Your task to perform on an android device: Check the news Image 0: 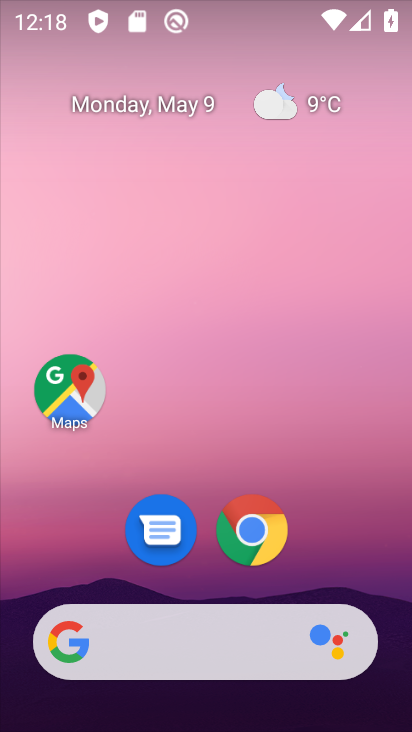
Step 0: click (304, 319)
Your task to perform on an android device: Check the news Image 1: 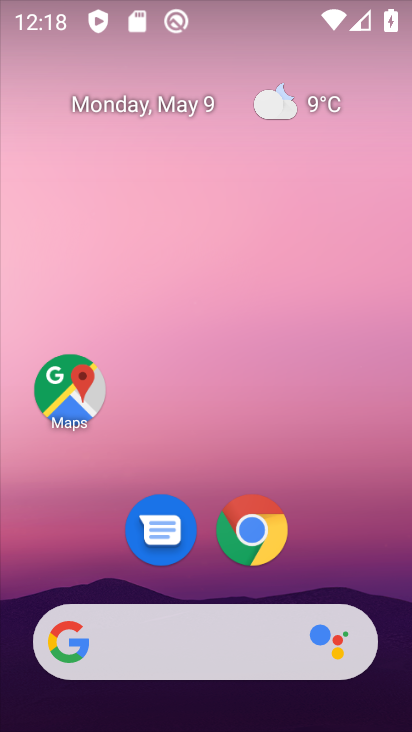
Step 1: click (259, 529)
Your task to perform on an android device: Check the news Image 2: 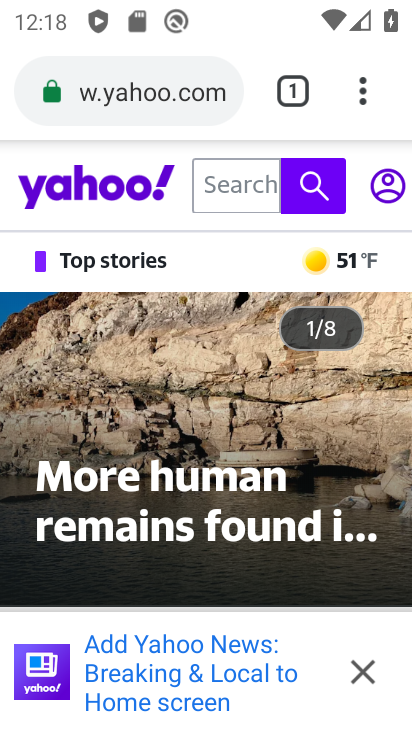
Step 2: click (340, 87)
Your task to perform on an android device: Check the news Image 3: 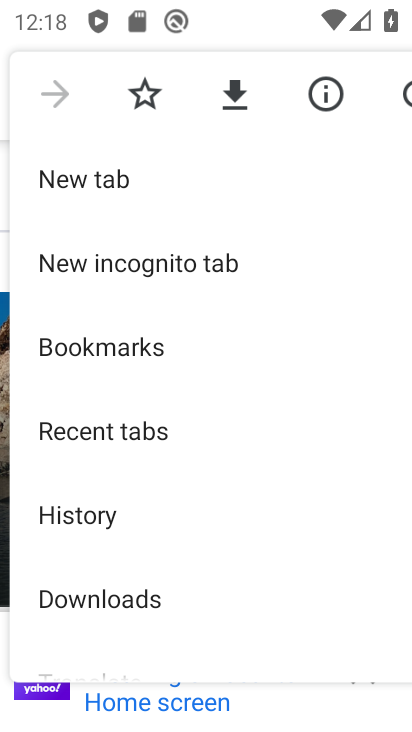
Step 3: click (119, 180)
Your task to perform on an android device: Check the news Image 4: 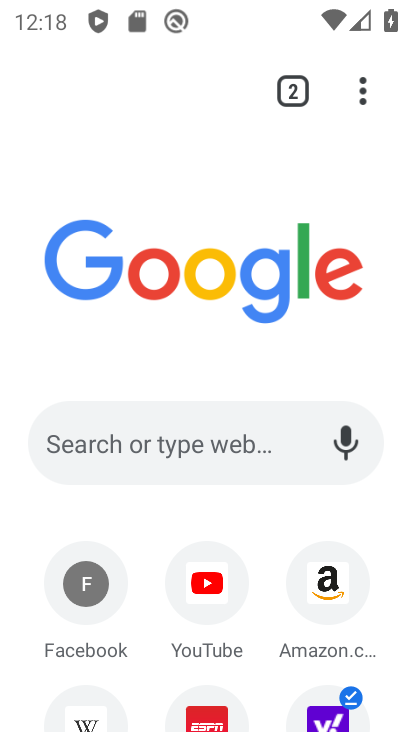
Step 4: click (167, 444)
Your task to perform on an android device: Check the news Image 5: 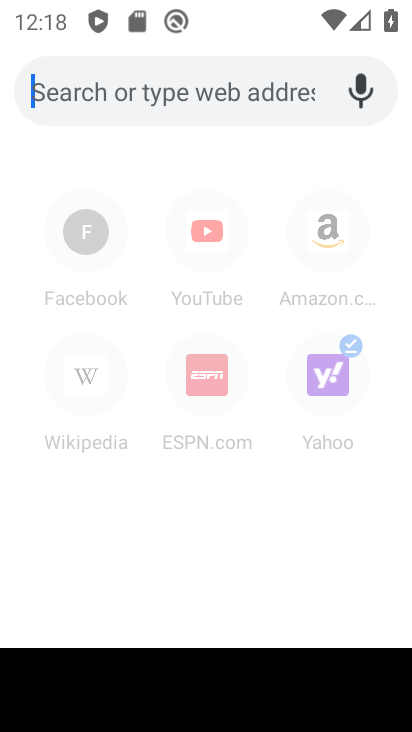
Step 5: type "Check the news"
Your task to perform on an android device: Check the news Image 6: 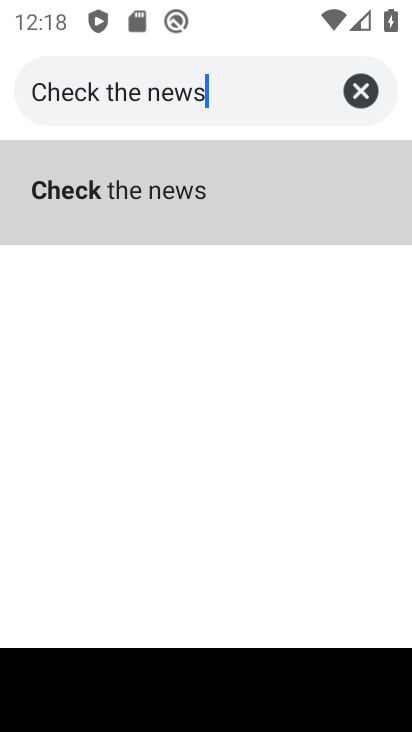
Step 6: click (234, 237)
Your task to perform on an android device: Check the news Image 7: 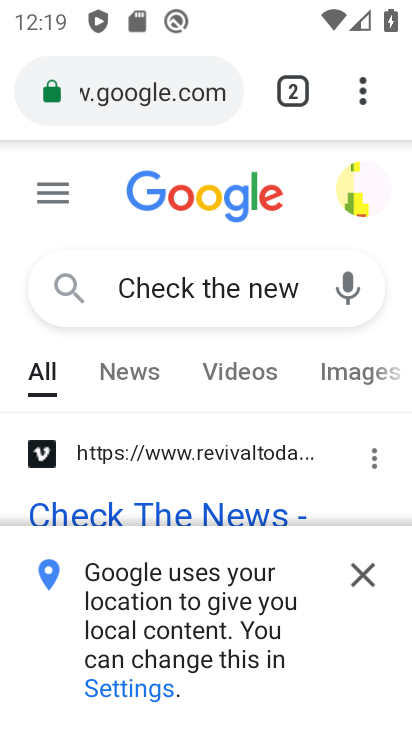
Step 7: click (355, 566)
Your task to perform on an android device: Check the news Image 8: 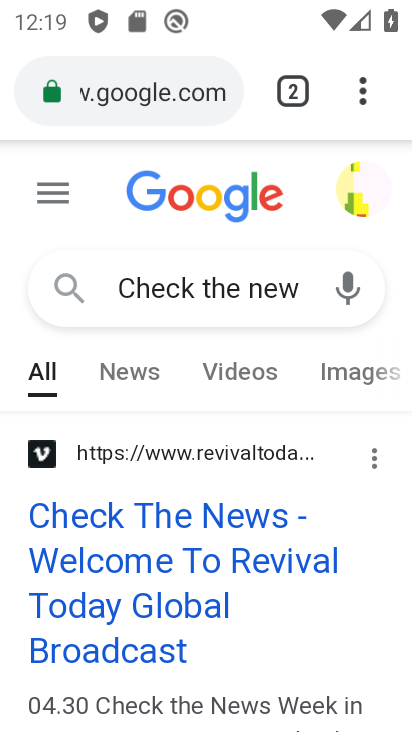
Step 8: task complete